Your task to perform on an android device: turn off data saver in the chrome app Image 0: 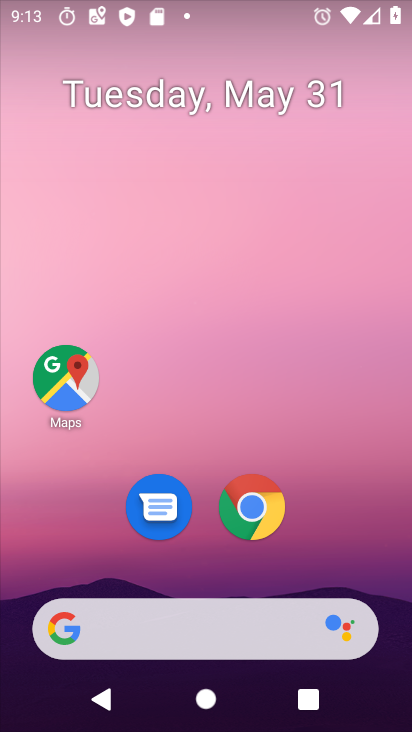
Step 0: click (247, 511)
Your task to perform on an android device: turn off data saver in the chrome app Image 1: 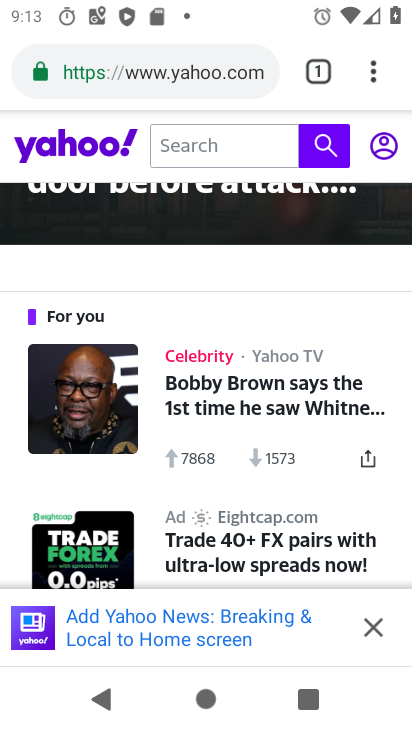
Step 1: click (375, 73)
Your task to perform on an android device: turn off data saver in the chrome app Image 2: 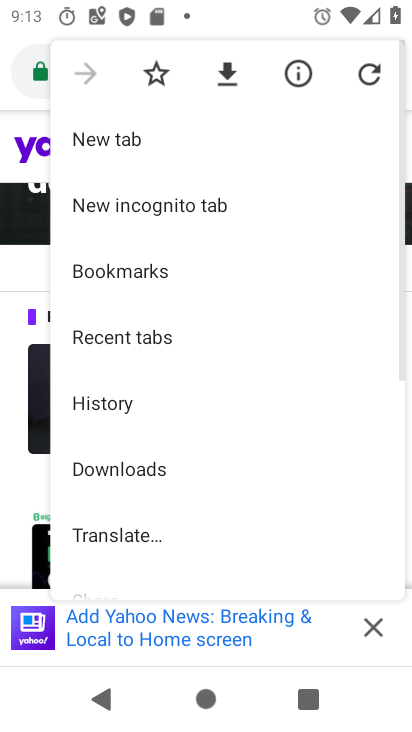
Step 2: drag from (220, 441) to (218, 129)
Your task to perform on an android device: turn off data saver in the chrome app Image 3: 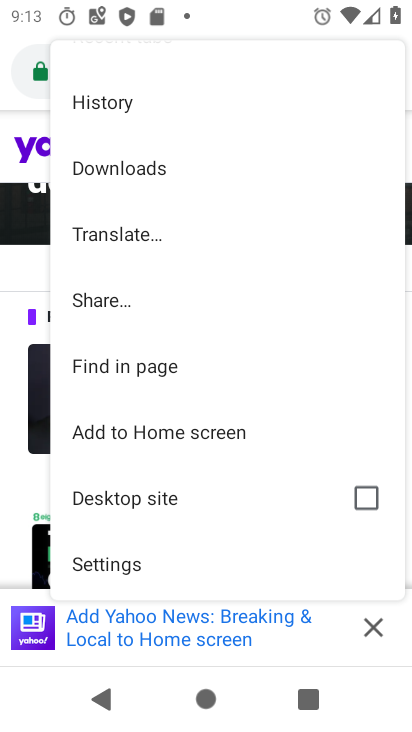
Step 3: drag from (206, 439) to (188, 150)
Your task to perform on an android device: turn off data saver in the chrome app Image 4: 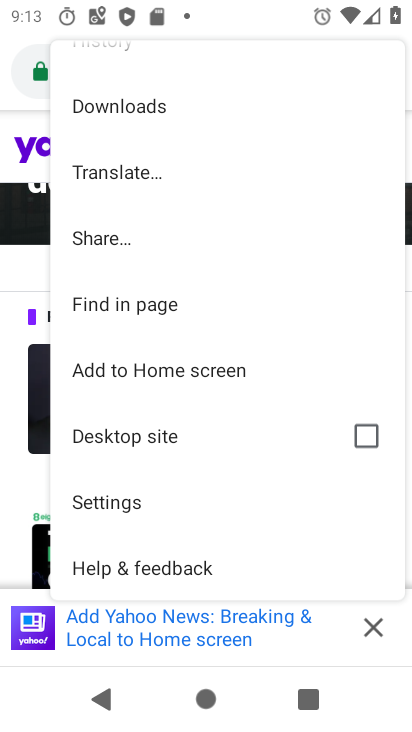
Step 4: click (97, 500)
Your task to perform on an android device: turn off data saver in the chrome app Image 5: 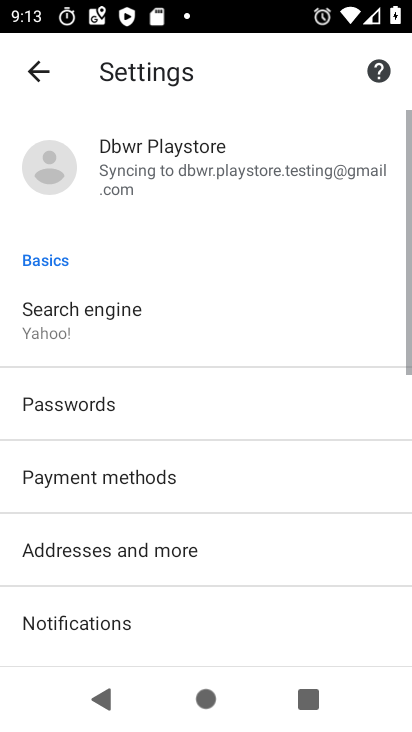
Step 5: drag from (222, 519) to (239, 98)
Your task to perform on an android device: turn off data saver in the chrome app Image 6: 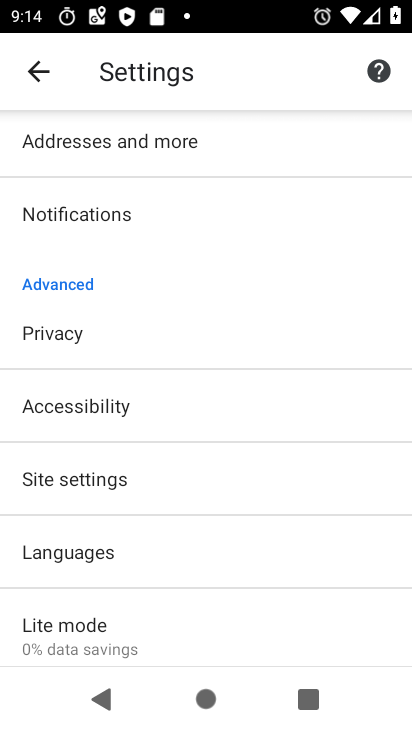
Step 6: drag from (136, 627) to (140, 404)
Your task to perform on an android device: turn off data saver in the chrome app Image 7: 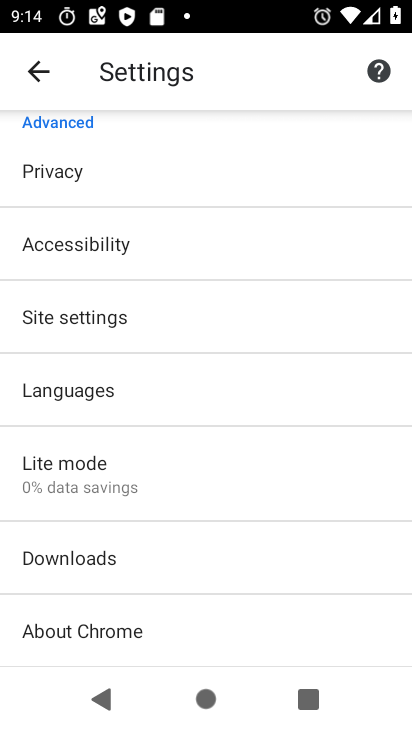
Step 7: click (51, 482)
Your task to perform on an android device: turn off data saver in the chrome app Image 8: 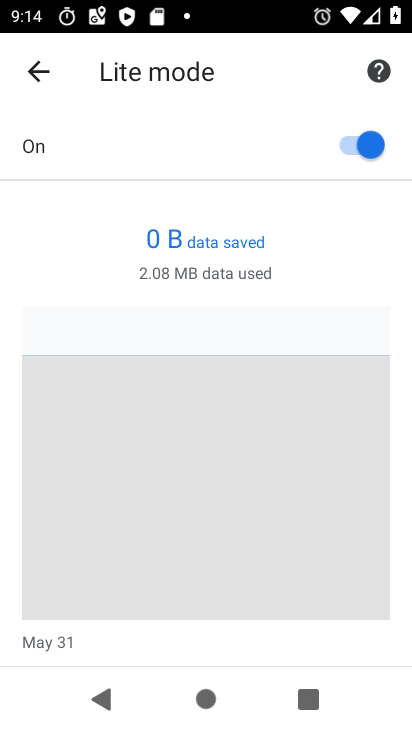
Step 8: click (360, 145)
Your task to perform on an android device: turn off data saver in the chrome app Image 9: 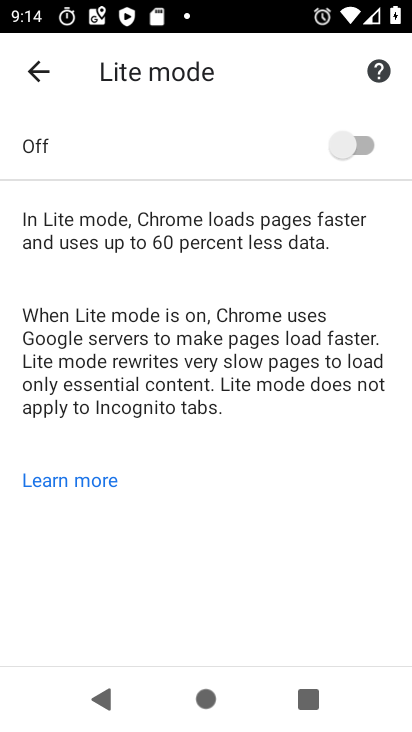
Step 9: task complete